Your task to perform on an android device: Go to Amazon Image 0: 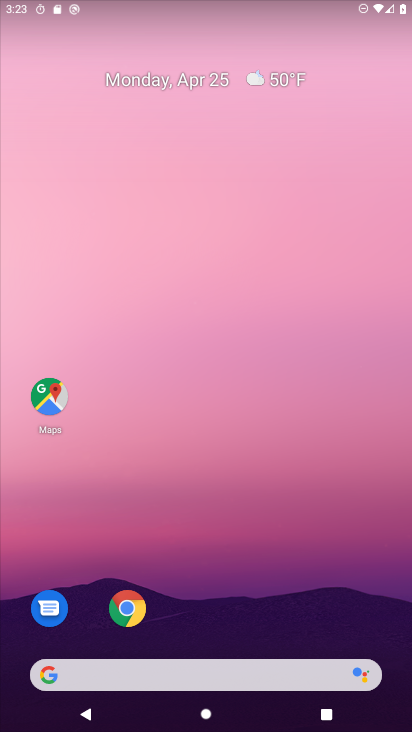
Step 0: click (143, 611)
Your task to perform on an android device: Go to Amazon Image 1: 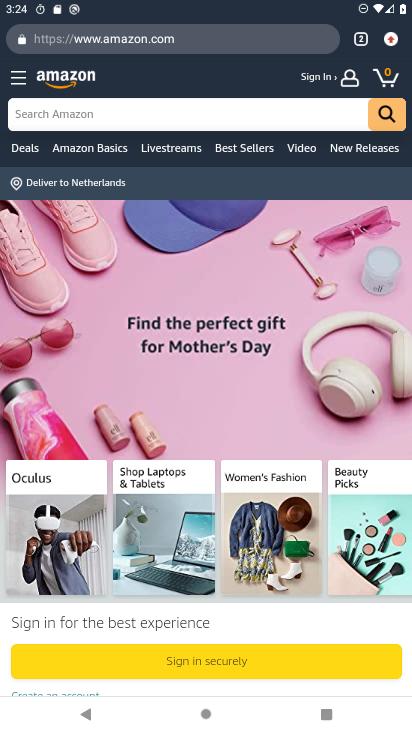
Step 1: task complete